Your task to perform on an android device: Open Chrome and go to the settings page Image 0: 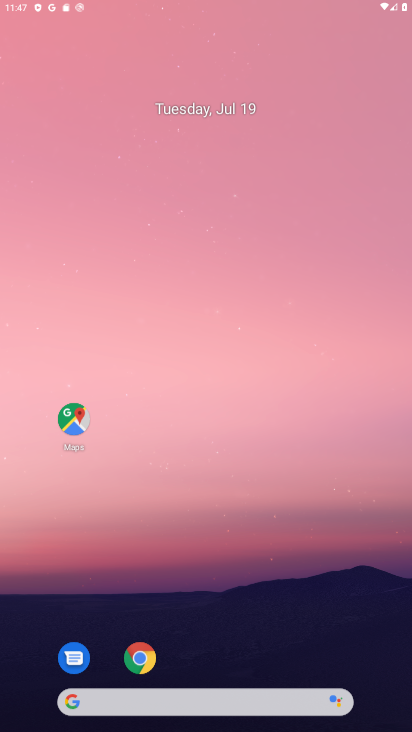
Step 0: click (354, 152)
Your task to perform on an android device: Open Chrome and go to the settings page Image 1: 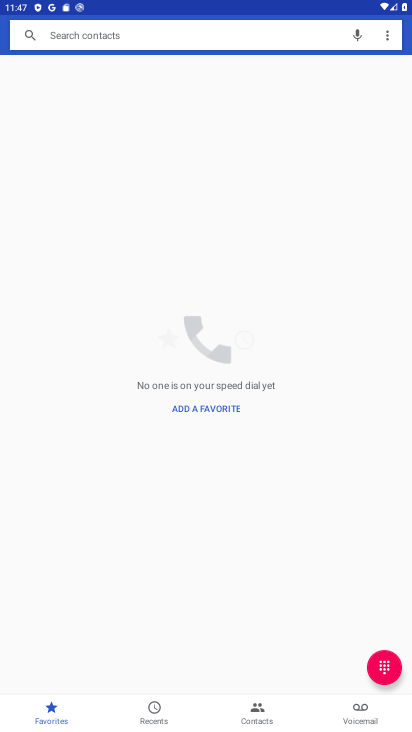
Step 1: press home button
Your task to perform on an android device: Open Chrome and go to the settings page Image 2: 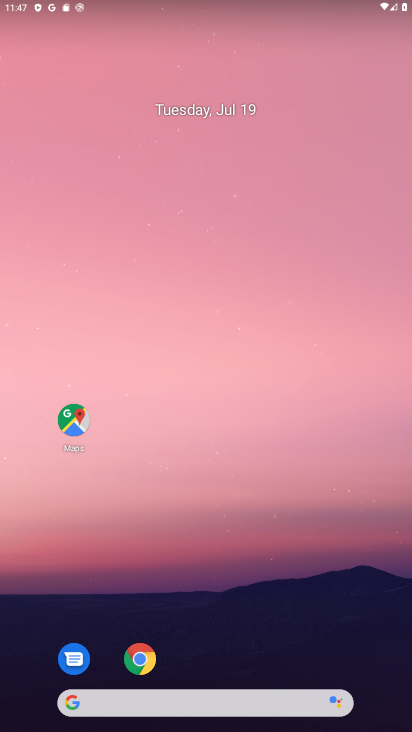
Step 2: drag from (282, 599) to (216, 139)
Your task to perform on an android device: Open Chrome and go to the settings page Image 3: 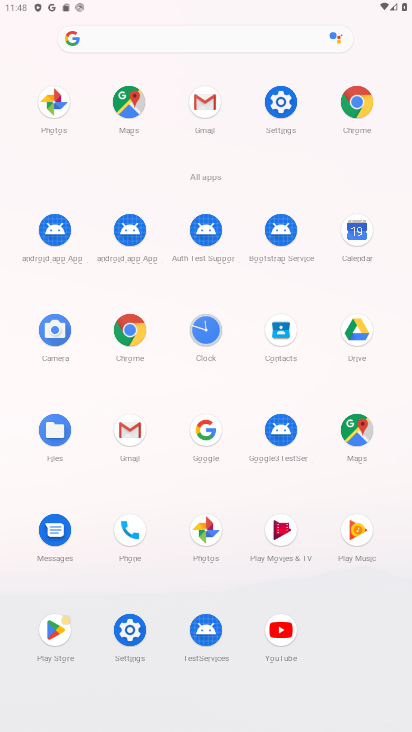
Step 3: click (355, 103)
Your task to perform on an android device: Open Chrome and go to the settings page Image 4: 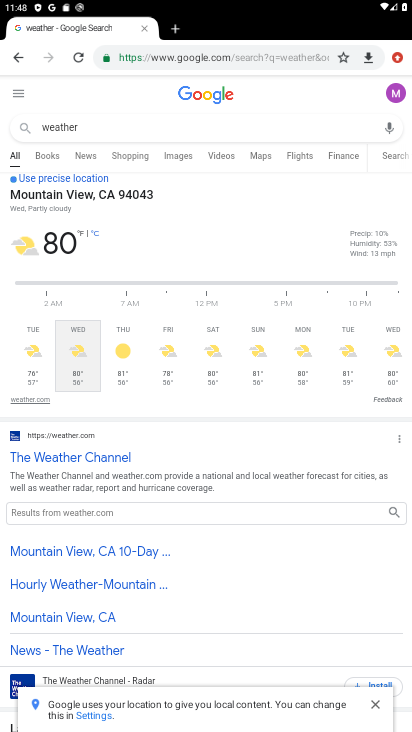
Step 4: task complete